Your task to perform on an android device: Open Maps and search for coffee Image 0: 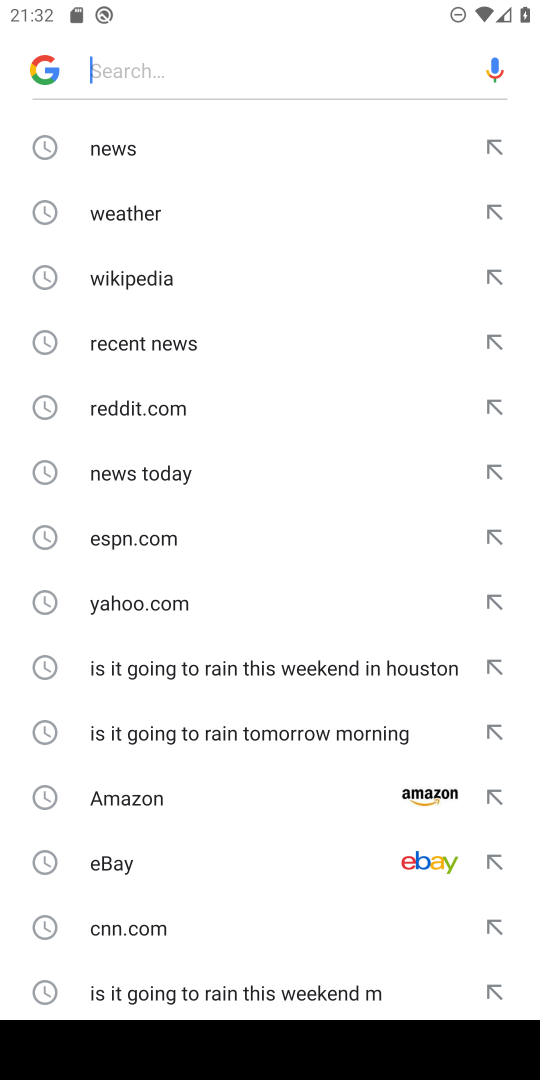
Step 0: press home button
Your task to perform on an android device: Open Maps and search for coffee Image 1: 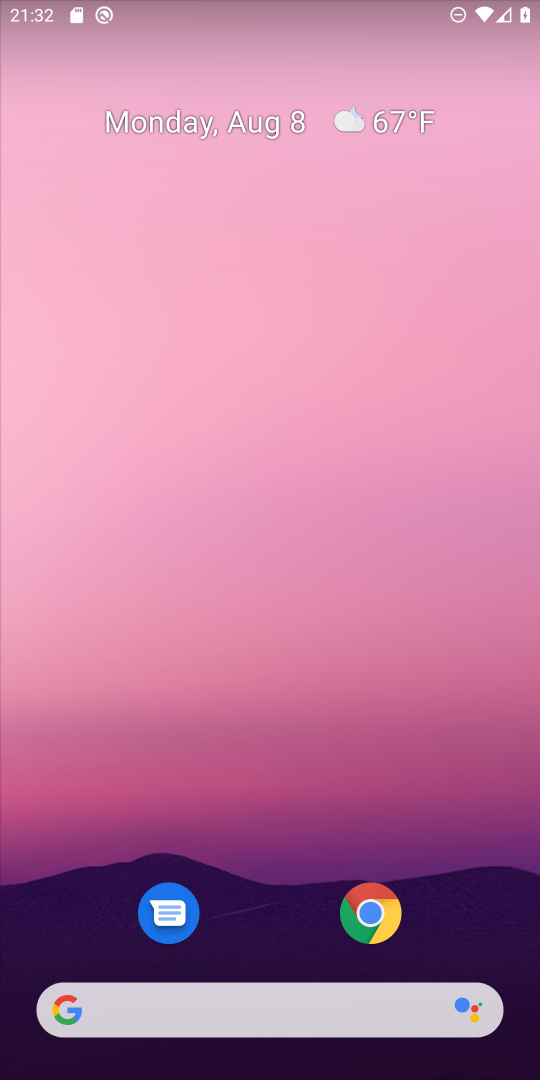
Step 1: drag from (227, 1034) to (381, 263)
Your task to perform on an android device: Open Maps and search for coffee Image 2: 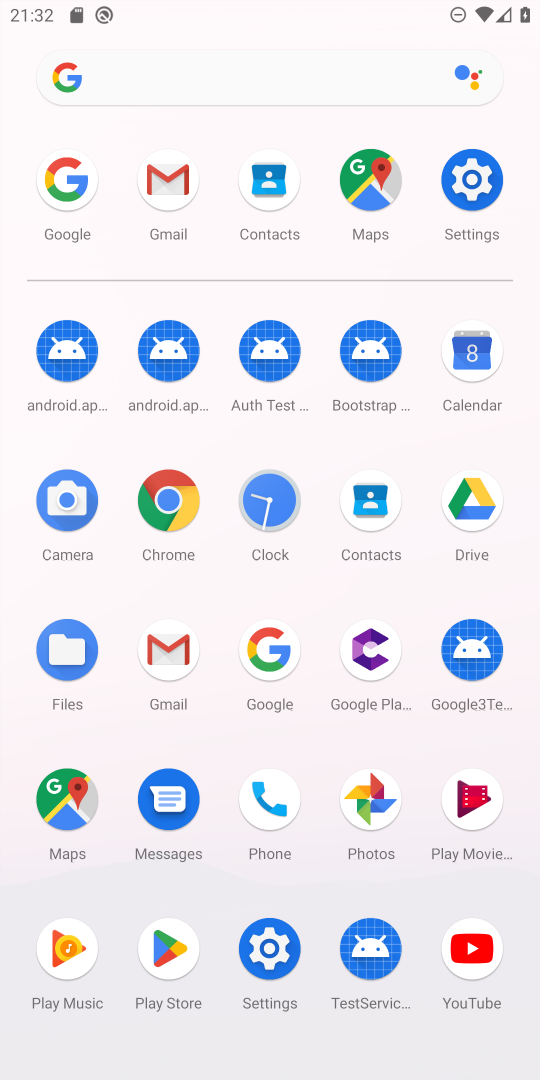
Step 2: click (364, 250)
Your task to perform on an android device: Open Maps and search for coffee Image 3: 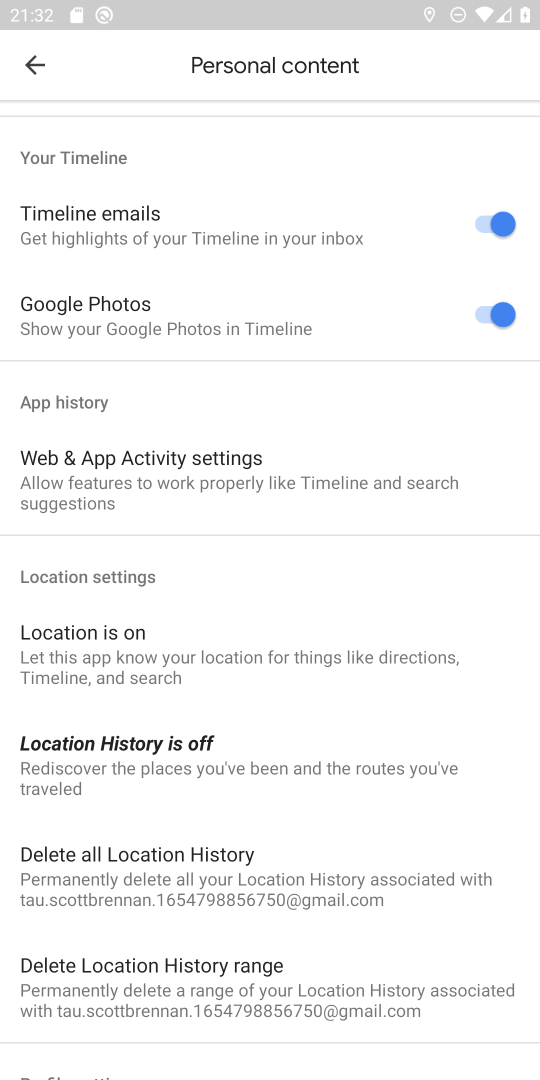
Step 3: press back button
Your task to perform on an android device: Open Maps and search for coffee Image 4: 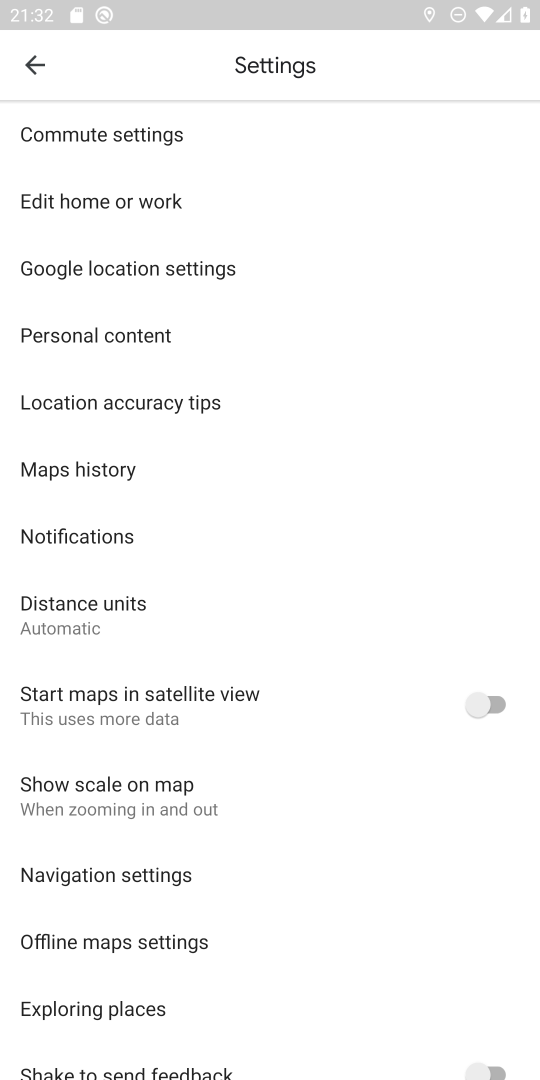
Step 4: press back button
Your task to perform on an android device: Open Maps and search for coffee Image 5: 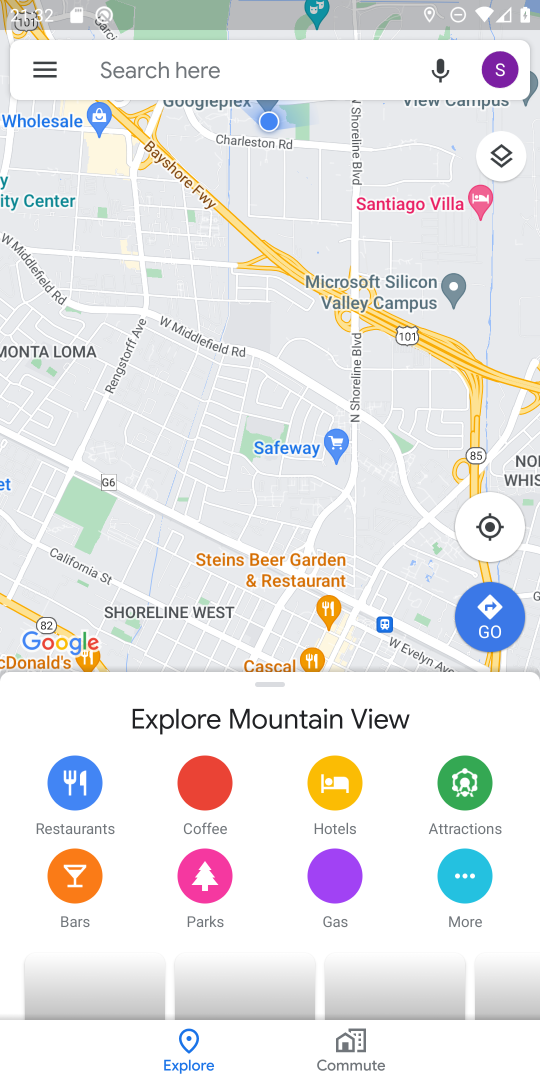
Step 5: click (293, 83)
Your task to perform on an android device: Open Maps and search for coffee Image 6: 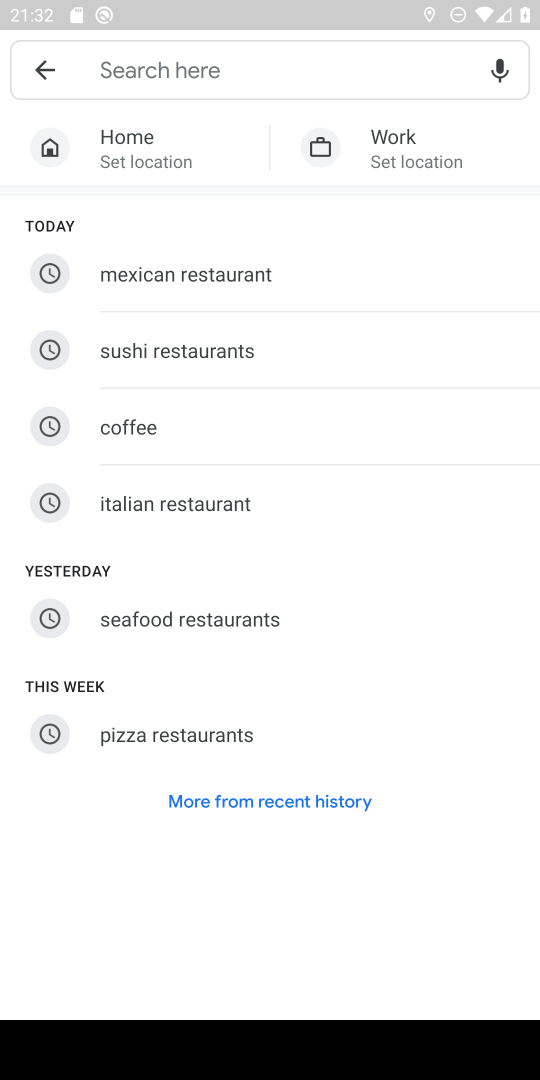
Step 6: type "coffee"
Your task to perform on an android device: Open Maps and search for coffee Image 7: 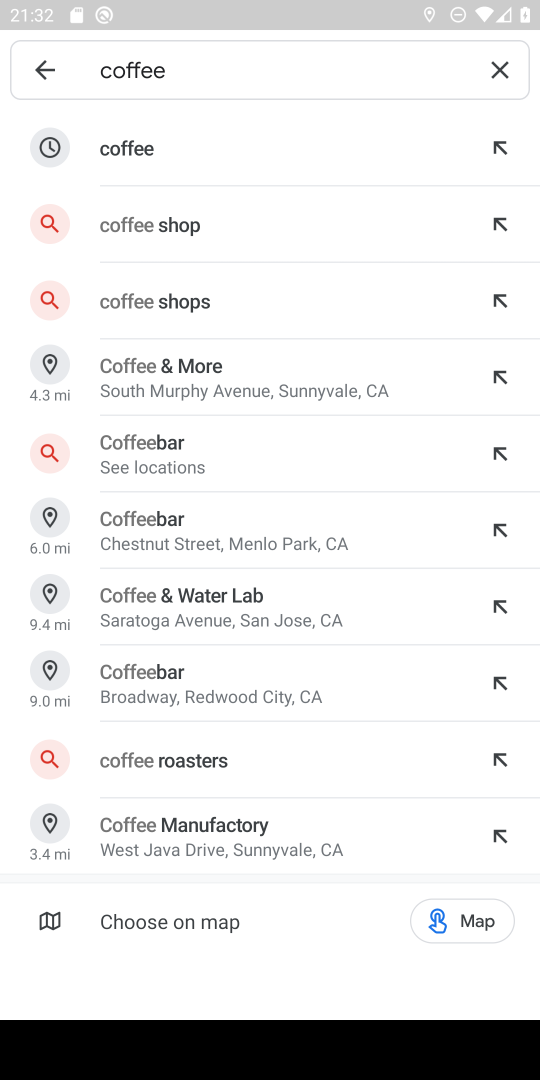
Step 7: click (138, 152)
Your task to perform on an android device: Open Maps and search for coffee Image 8: 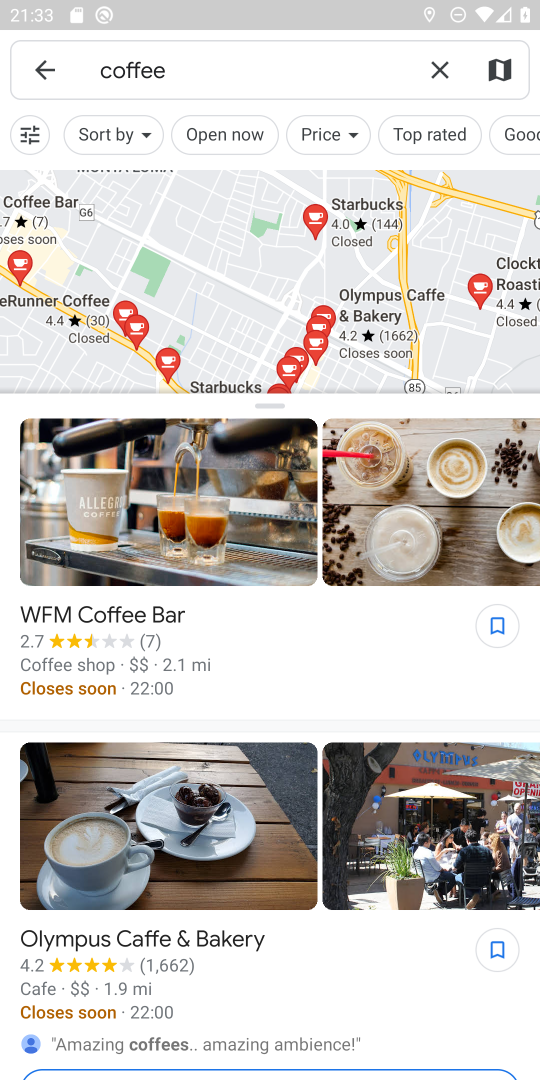
Step 8: task complete